Your task to perform on an android device: Search for "razer thresher" on costco, select the first entry, add it to the cart, then select checkout. Image 0: 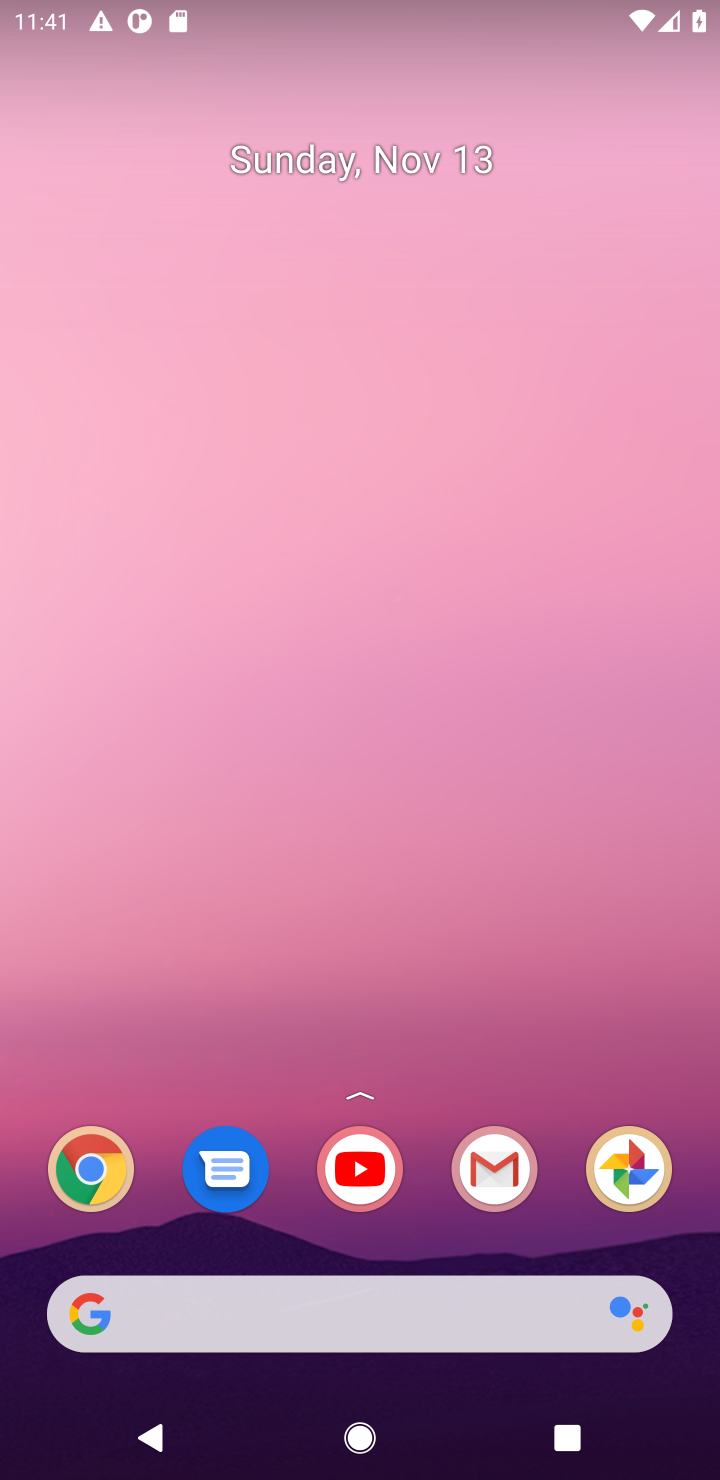
Step 0: drag from (437, 1240) to (333, 219)
Your task to perform on an android device: Search for "razer thresher" on costco, select the first entry, add it to the cart, then select checkout. Image 1: 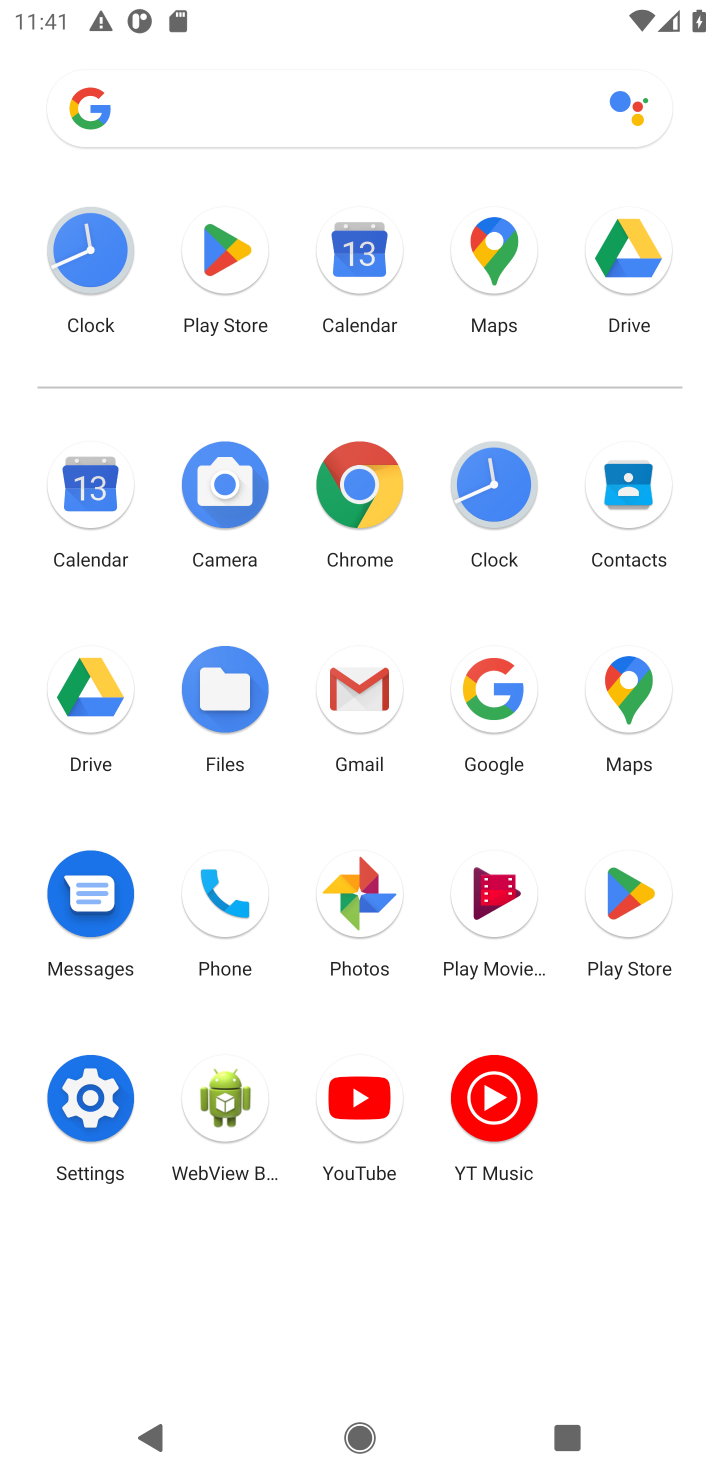
Step 1: click (361, 485)
Your task to perform on an android device: Search for "razer thresher" on costco, select the first entry, add it to the cart, then select checkout. Image 2: 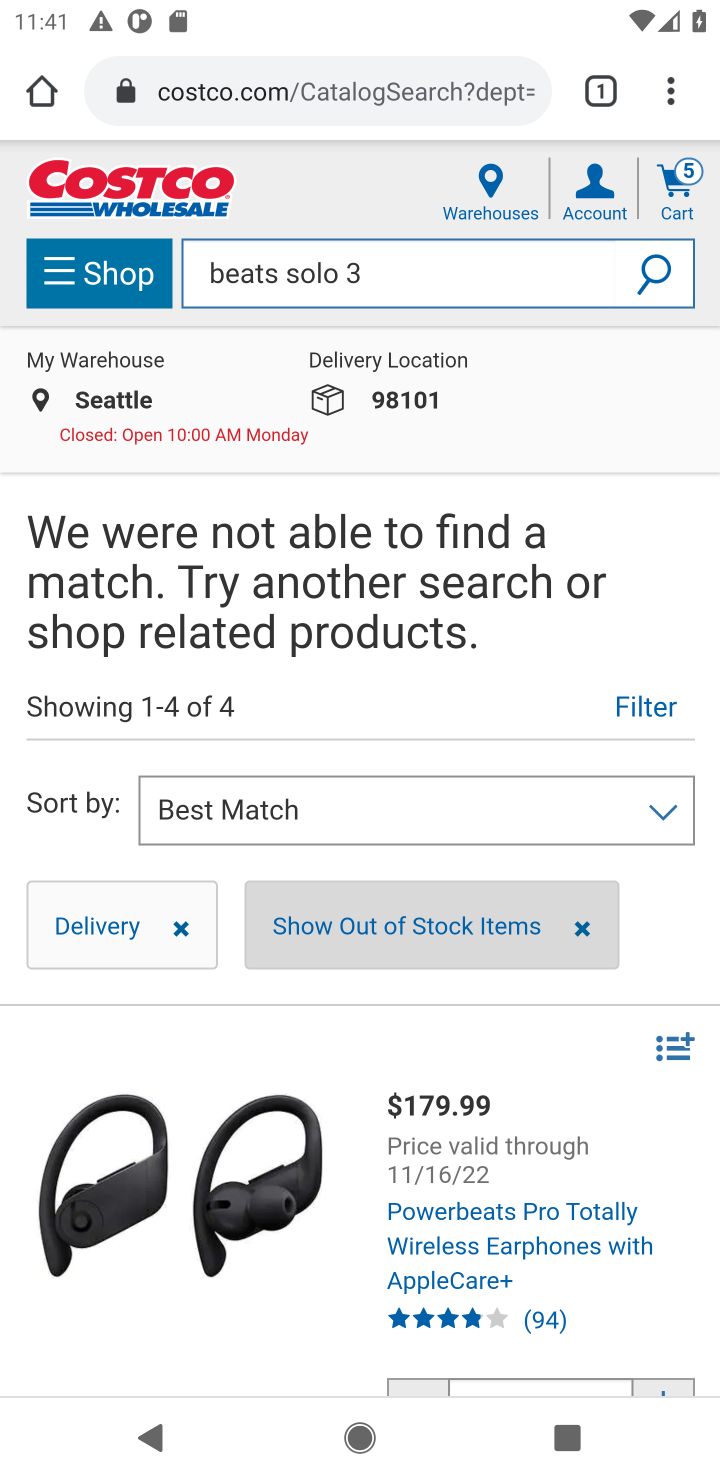
Step 2: click (546, 275)
Your task to perform on an android device: Search for "razer thresher" on costco, select the first entry, add it to the cart, then select checkout. Image 3: 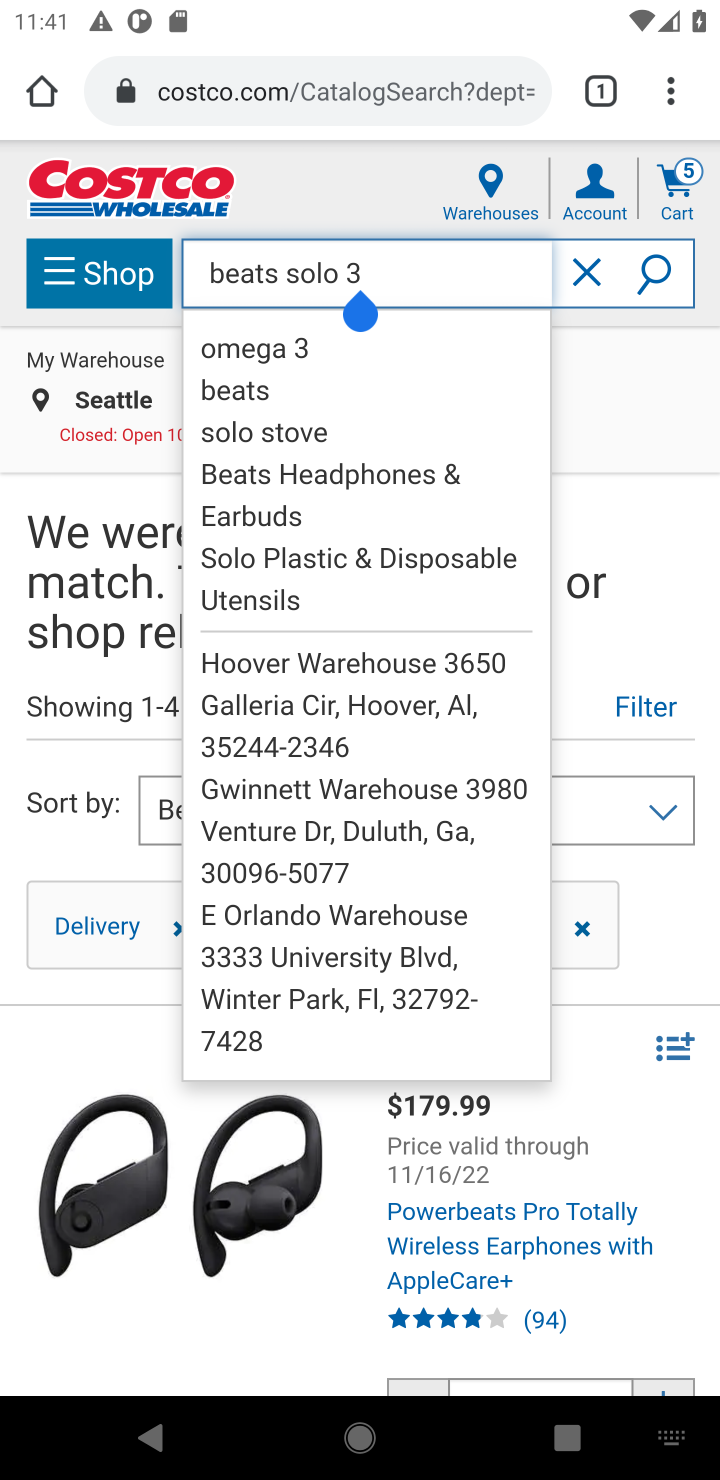
Step 3: click (589, 267)
Your task to perform on an android device: Search for "razer thresher" on costco, select the first entry, add it to the cart, then select checkout. Image 4: 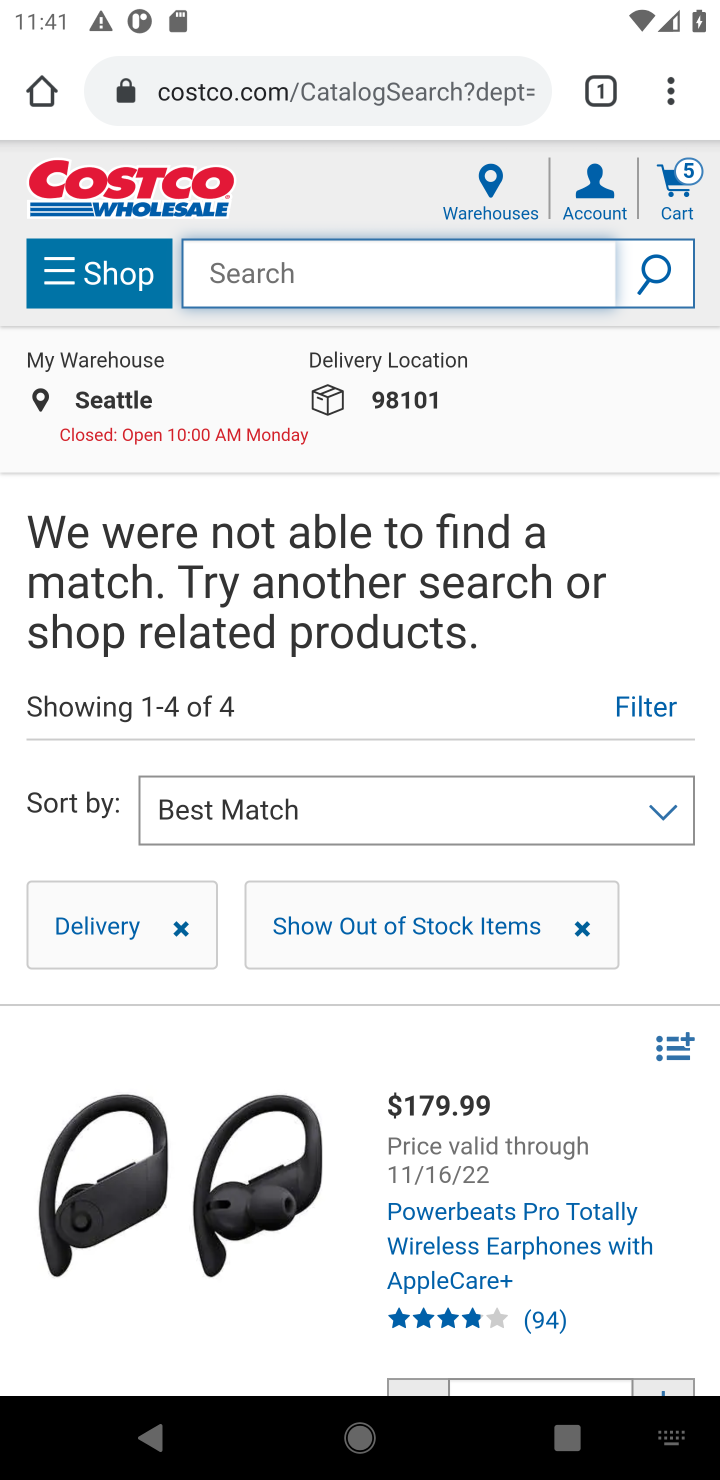
Step 4: type "razer thresher"
Your task to perform on an android device: Search for "razer thresher" on costco, select the first entry, add it to the cart, then select checkout. Image 5: 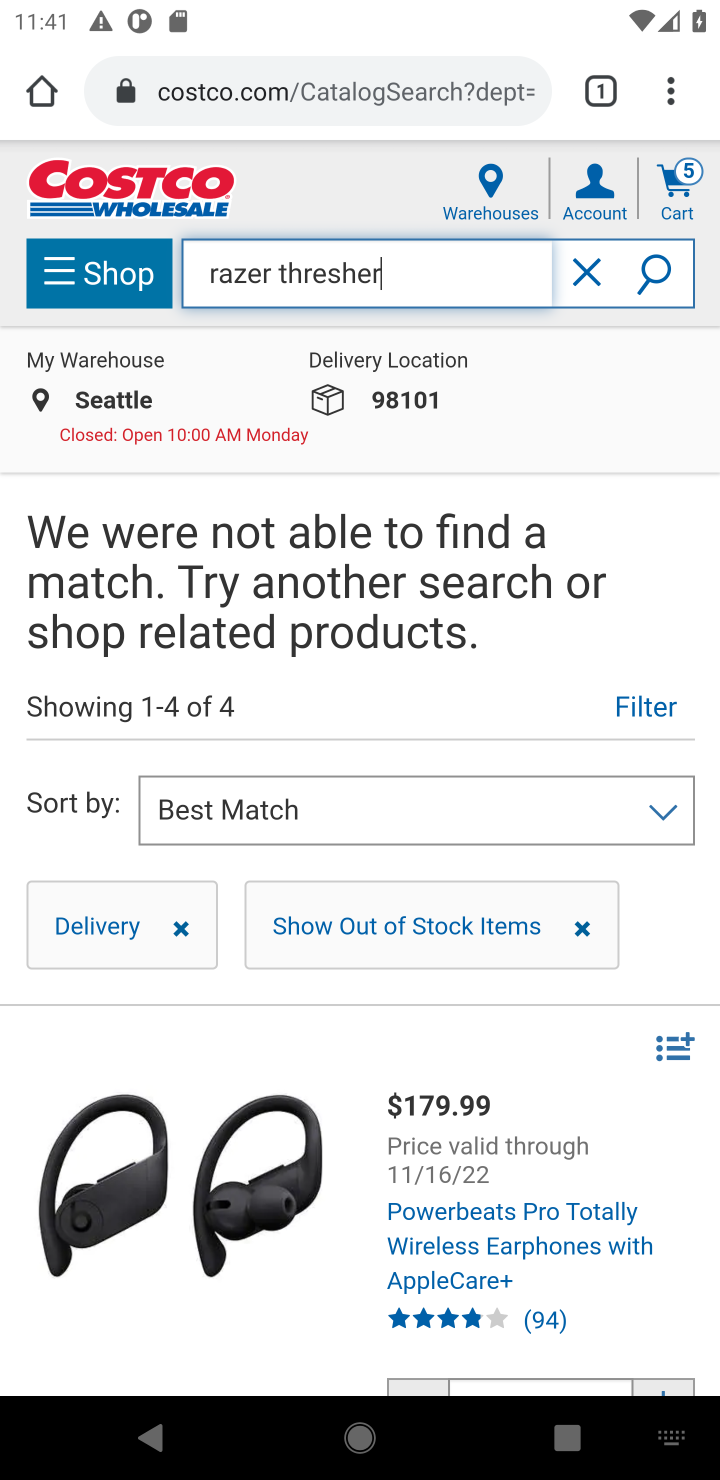
Step 5: press enter
Your task to perform on an android device: Search for "razer thresher" on costco, select the first entry, add it to the cart, then select checkout. Image 6: 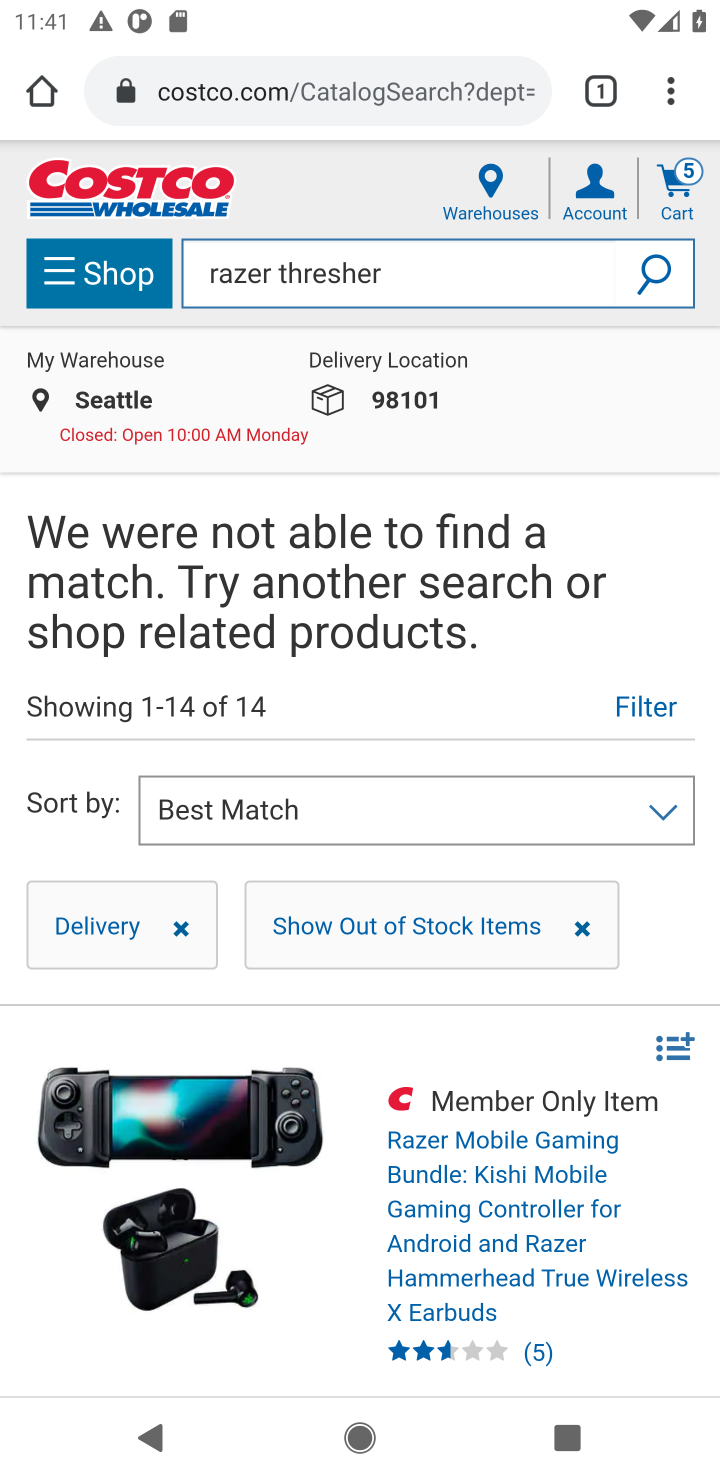
Step 6: task complete